Your task to perform on an android device: Show me recent news Image 0: 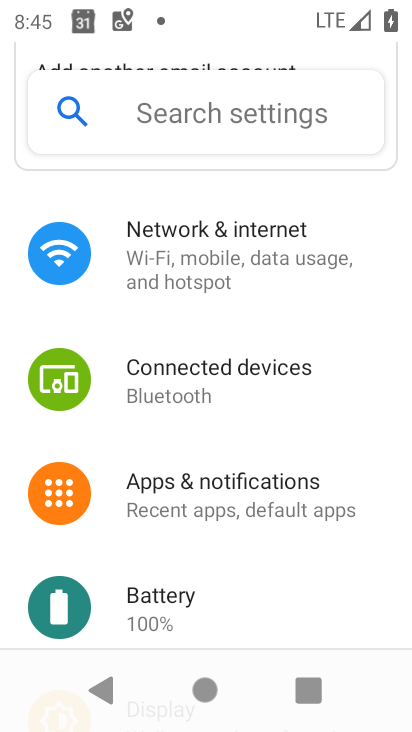
Step 0: press home button
Your task to perform on an android device: Show me recent news Image 1: 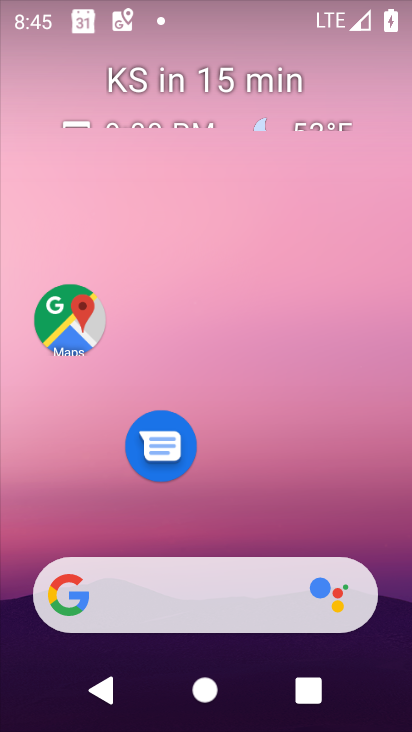
Step 1: drag from (212, 533) to (154, 29)
Your task to perform on an android device: Show me recent news Image 2: 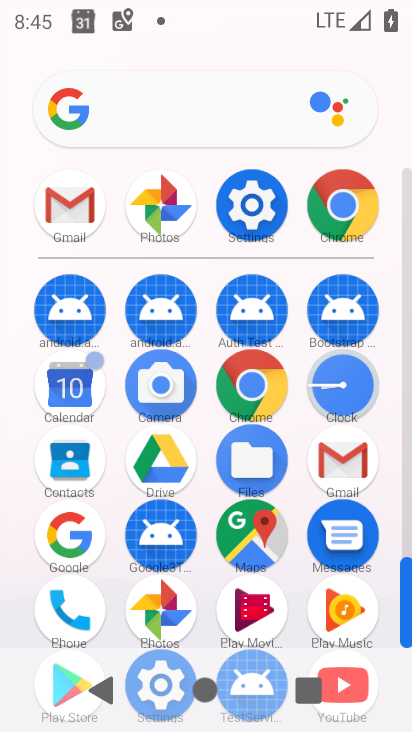
Step 2: click (67, 553)
Your task to perform on an android device: Show me recent news Image 3: 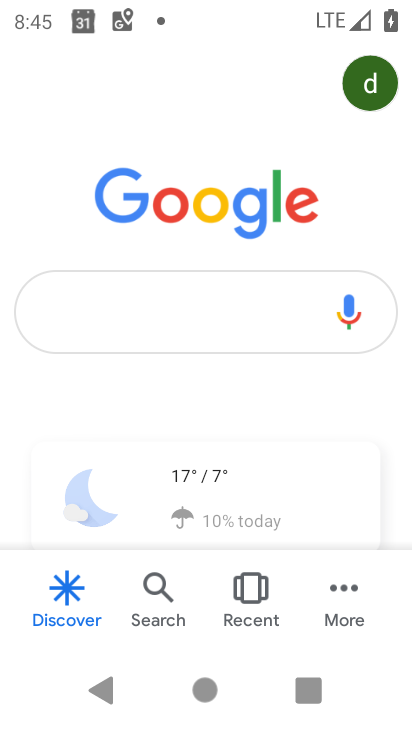
Step 3: task complete